Your task to perform on an android device: Go to Android settings Image 0: 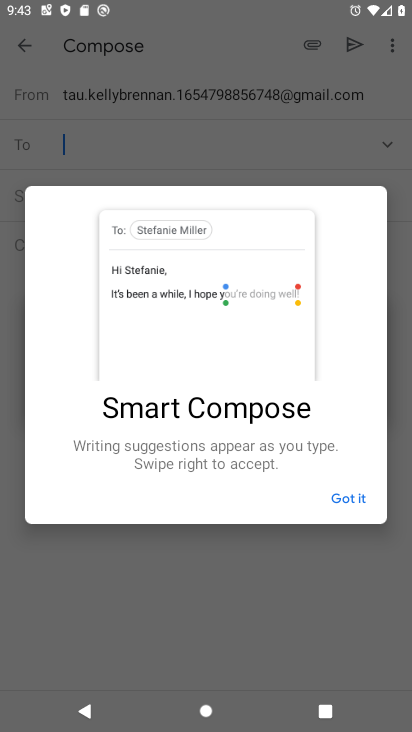
Step 0: press back button
Your task to perform on an android device: Go to Android settings Image 1: 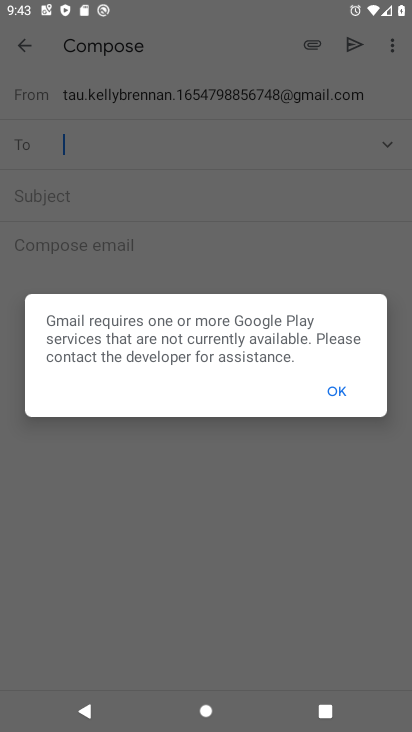
Step 1: click (332, 383)
Your task to perform on an android device: Go to Android settings Image 2: 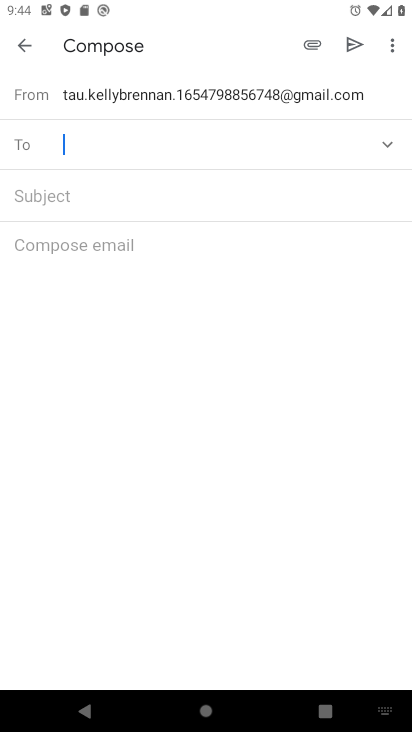
Step 2: press back button
Your task to perform on an android device: Go to Android settings Image 3: 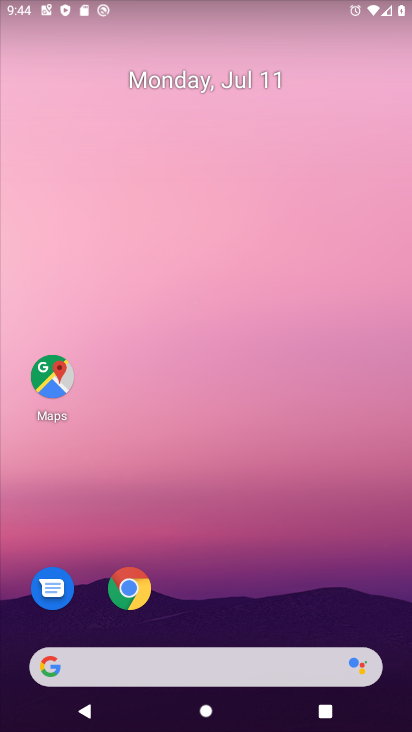
Step 3: drag from (207, 595) to (207, 4)
Your task to perform on an android device: Go to Android settings Image 4: 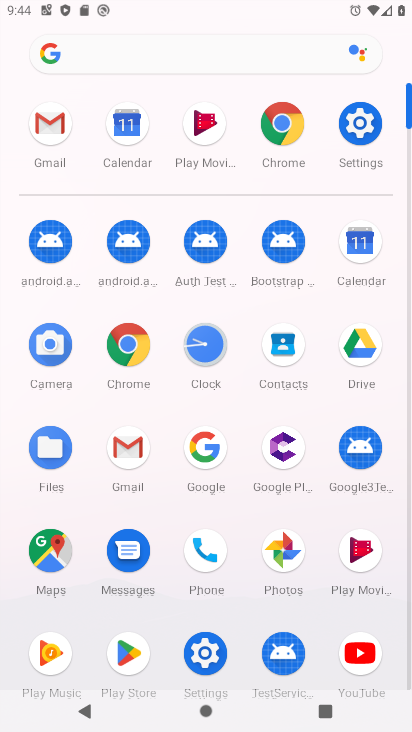
Step 4: click (363, 123)
Your task to perform on an android device: Go to Android settings Image 5: 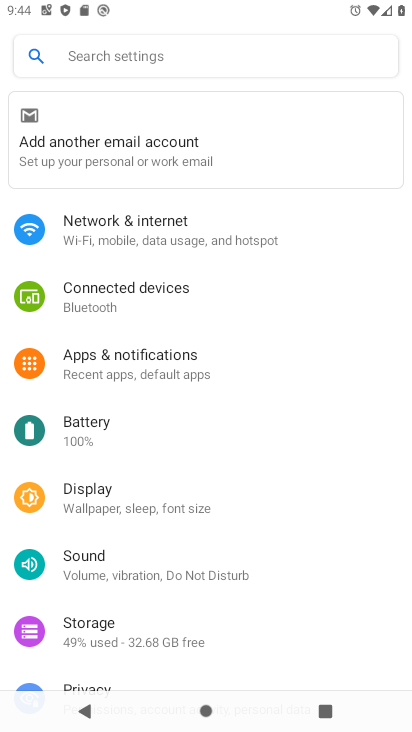
Step 5: drag from (150, 658) to (236, 13)
Your task to perform on an android device: Go to Android settings Image 6: 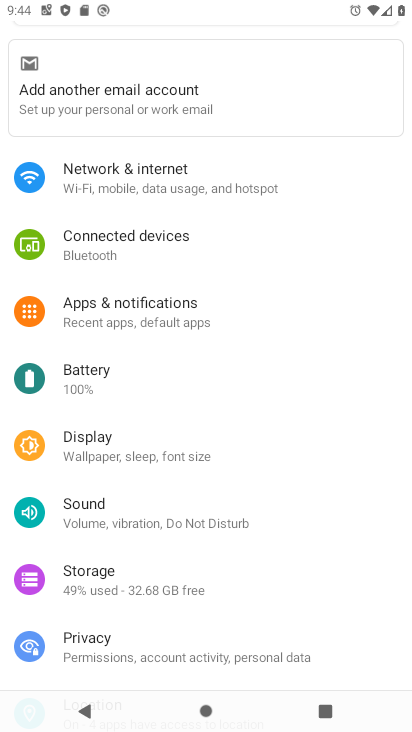
Step 6: drag from (138, 581) to (198, 19)
Your task to perform on an android device: Go to Android settings Image 7: 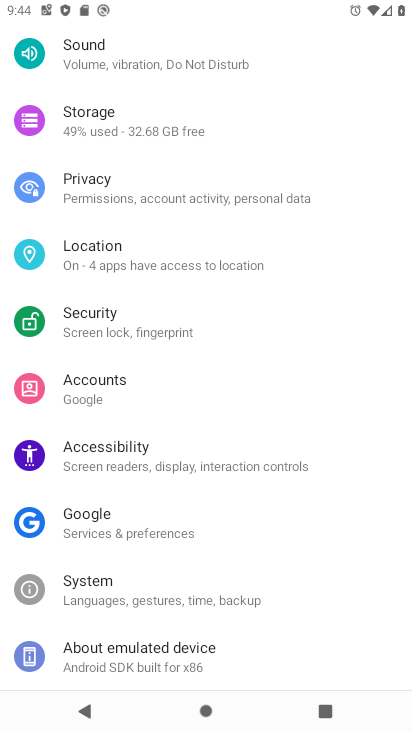
Step 7: drag from (151, 656) to (208, 48)
Your task to perform on an android device: Go to Android settings Image 8: 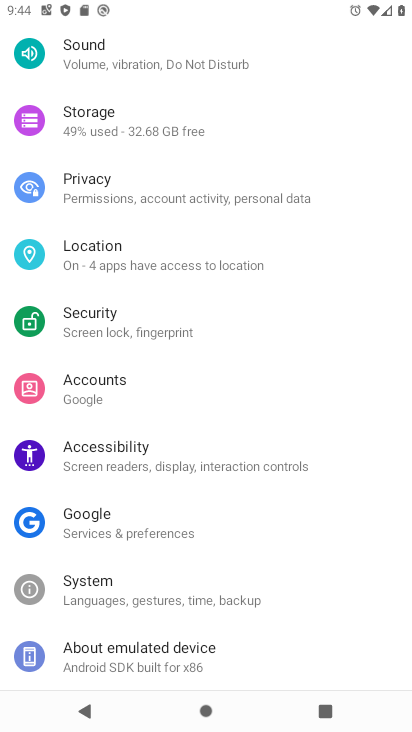
Step 8: click (131, 646)
Your task to perform on an android device: Go to Android settings Image 9: 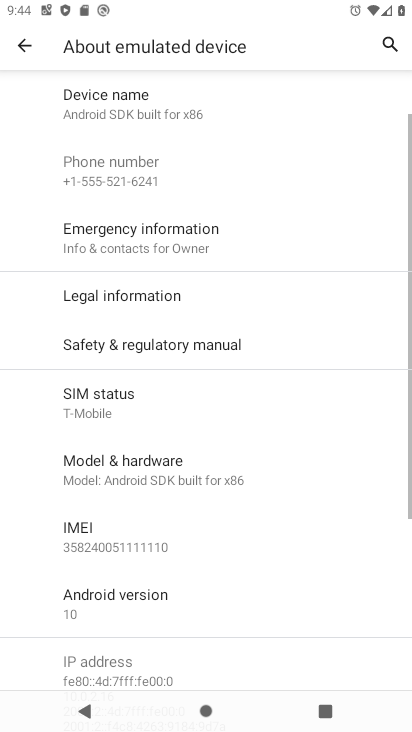
Step 9: click (134, 613)
Your task to perform on an android device: Go to Android settings Image 10: 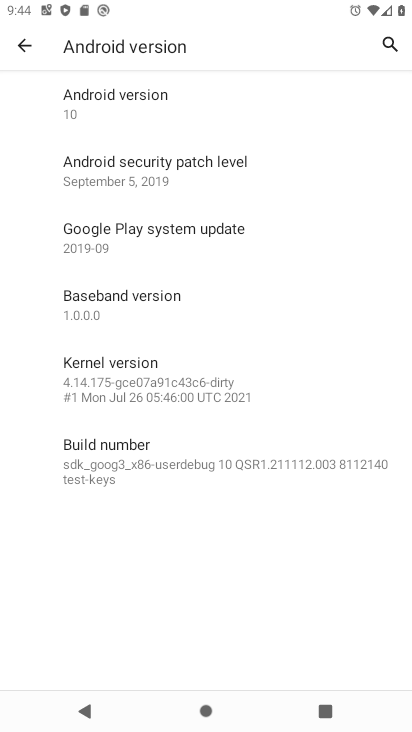
Step 10: task complete